Your task to perform on an android device: toggle show notifications on the lock screen Image 0: 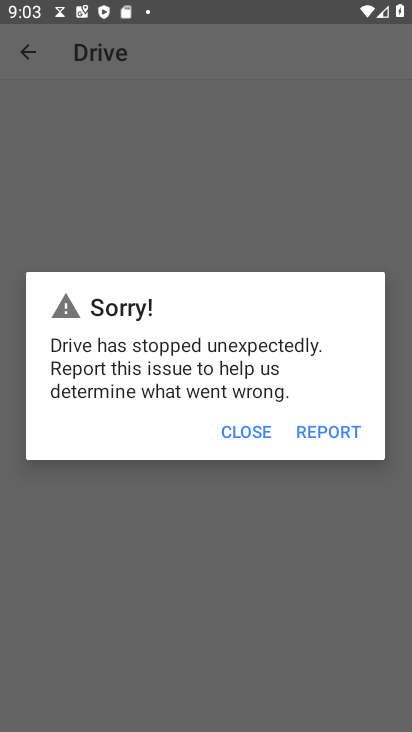
Step 0: press home button
Your task to perform on an android device: toggle show notifications on the lock screen Image 1: 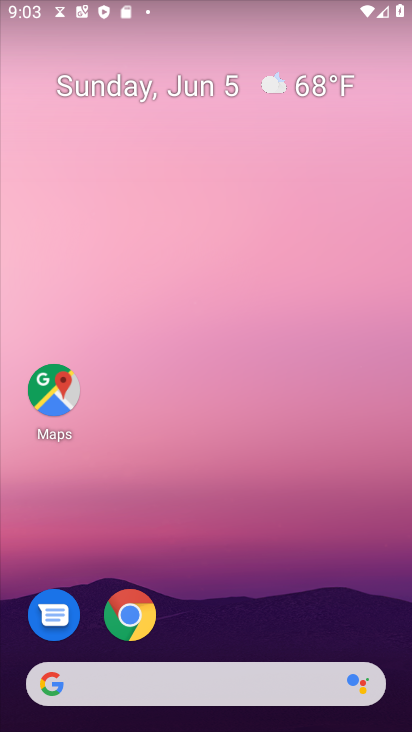
Step 1: drag from (178, 702) to (137, 78)
Your task to perform on an android device: toggle show notifications on the lock screen Image 2: 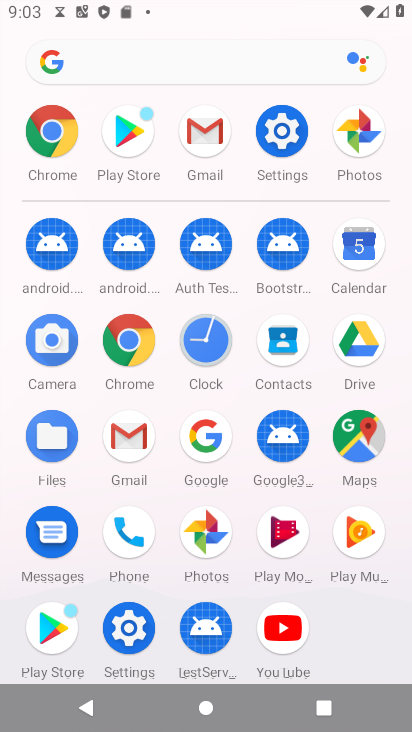
Step 2: click (268, 126)
Your task to perform on an android device: toggle show notifications on the lock screen Image 3: 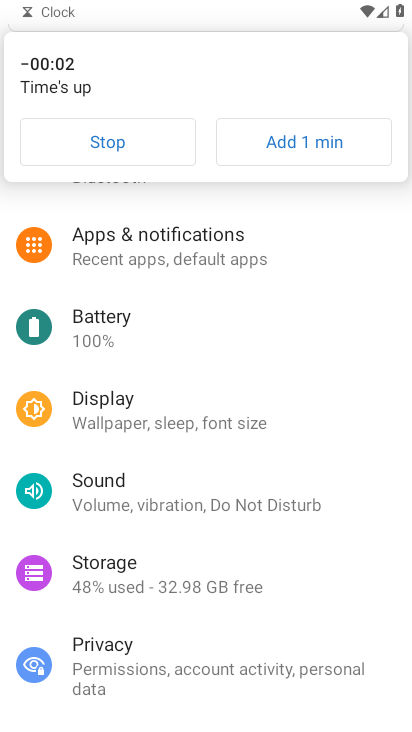
Step 3: click (108, 158)
Your task to perform on an android device: toggle show notifications on the lock screen Image 4: 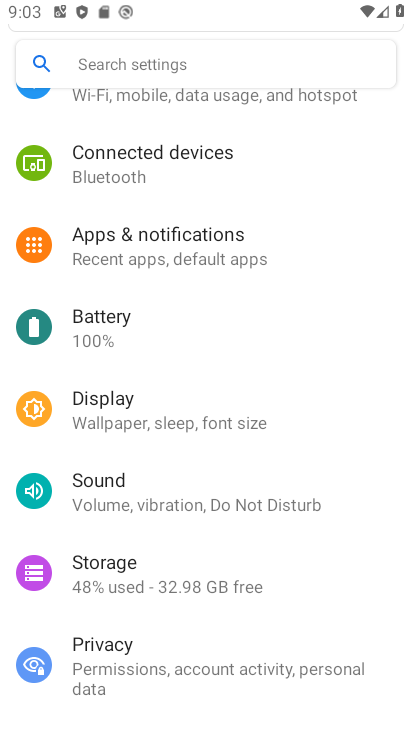
Step 4: click (176, 215)
Your task to perform on an android device: toggle show notifications on the lock screen Image 5: 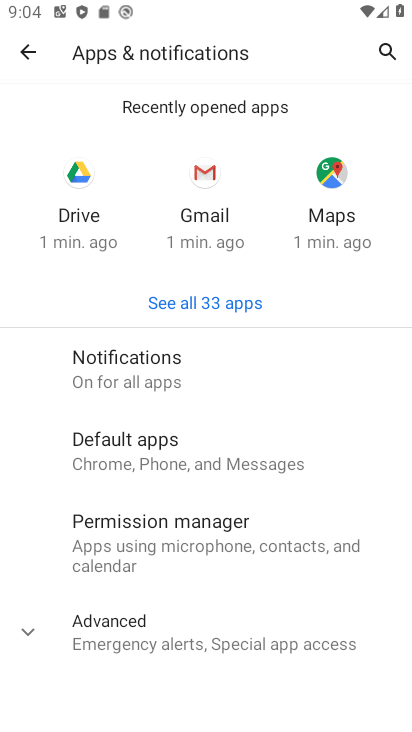
Step 5: click (132, 381)
Your task to perform on an android device: toggle show notifications on the lock screen Image 6: 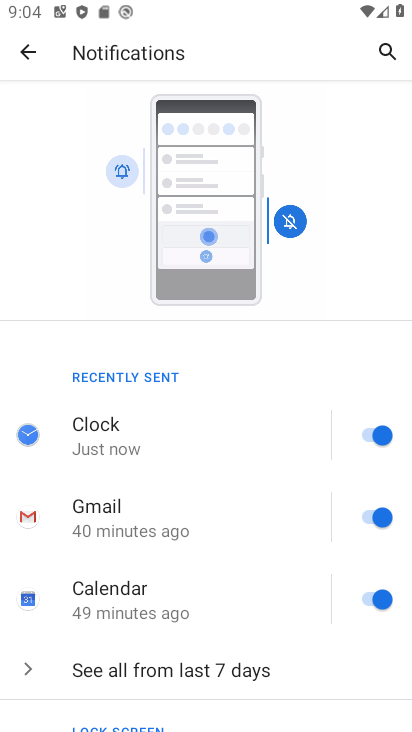
Step 6: drag from (187, 517) to (194, 163)
Your task to perform on an android device: toggle show notifications on the lock screen Image 7: 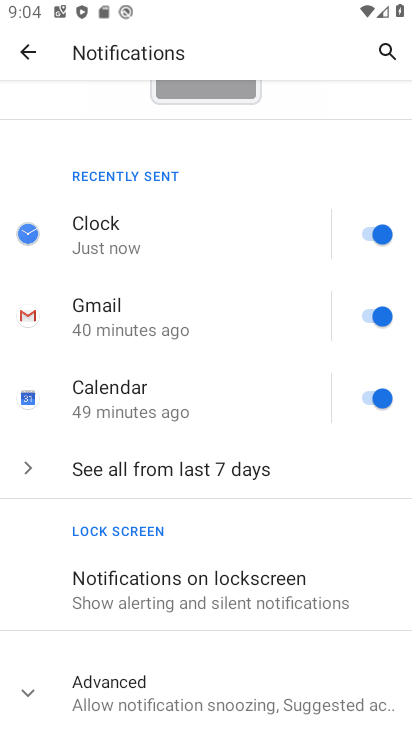
Step 7: click (200, 572)
Your task to perform on an android device: toggle show notifications on the lock screen Image 8: 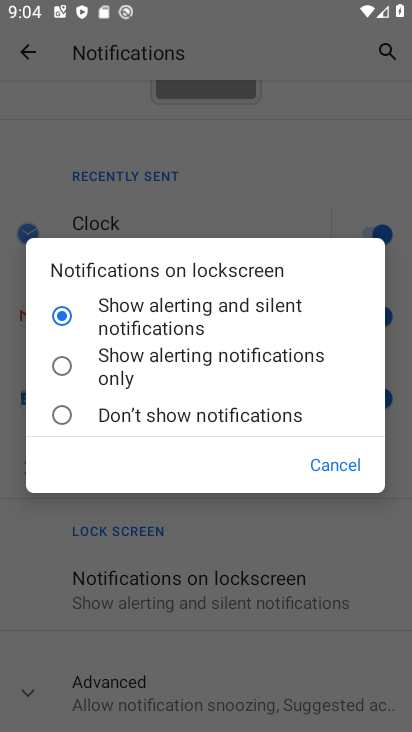
Step 8: click (134, 307)
Your task to perform on an android device: toggle show notifications on the lock screen Image 9: 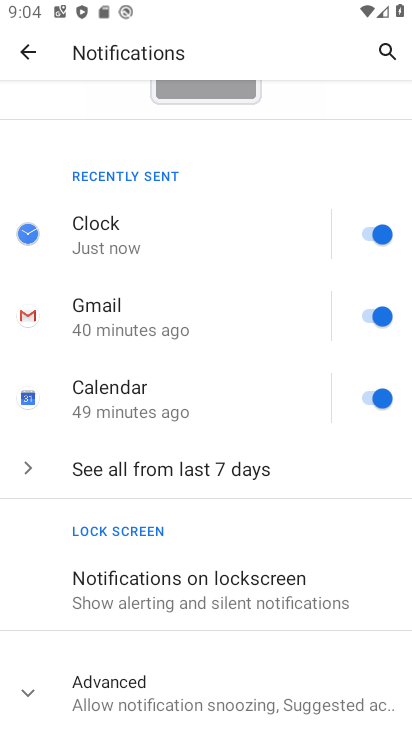
Step 9: task complete